Your task to perform on an android device: Open settings on Google Maps Image 0: 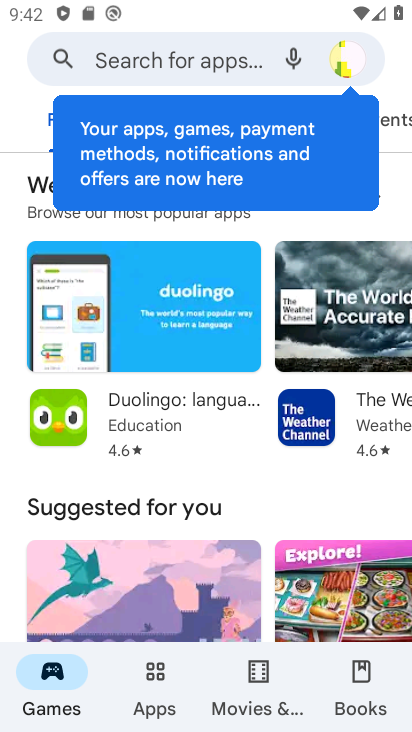
Step 0: press back button
Your task to perform on an android device: Open settings on Google Maps Image 1: 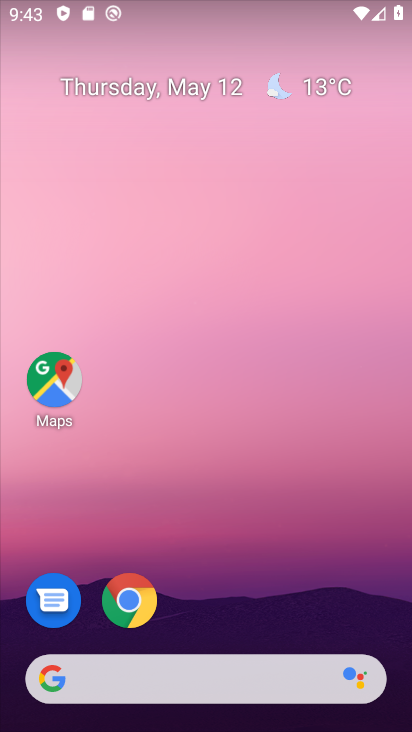
Step 1: click (40, 374)
Your task to perform on an android device: Open settings on Google Maps Image 2: 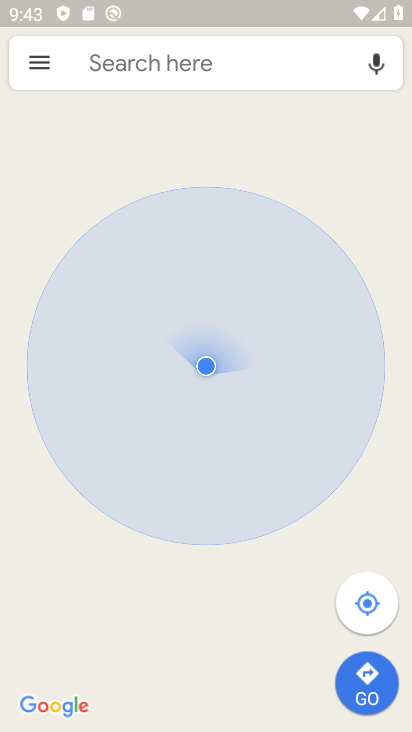
Step 2: task complete